Your task to perform on an android device: Go to Yahoo.com Image 0: 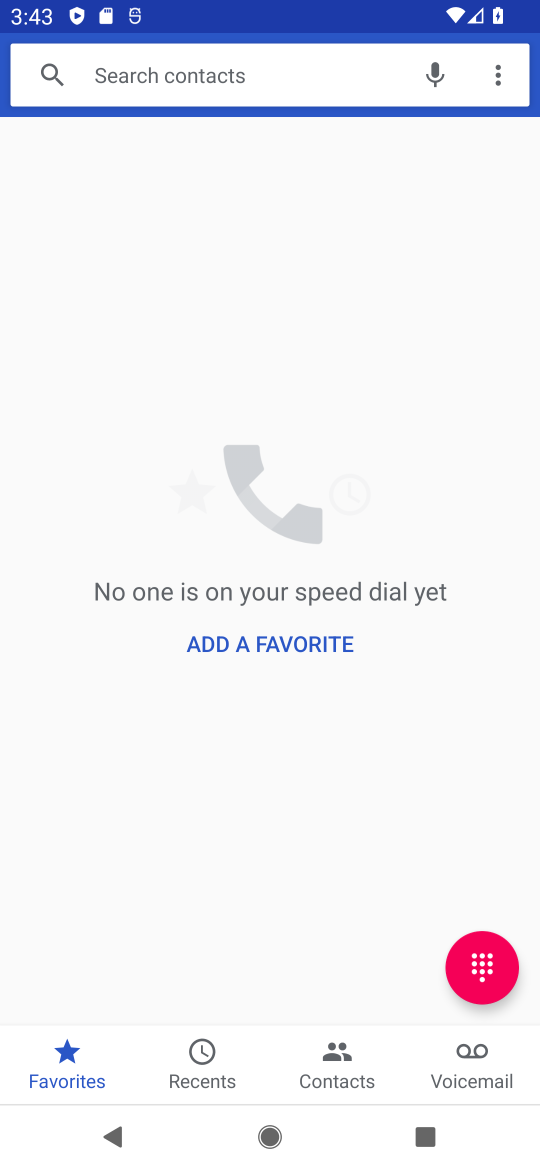
Step 0: press home button
Your task to perform on an android device: Go to Yahoo.com Image 1: 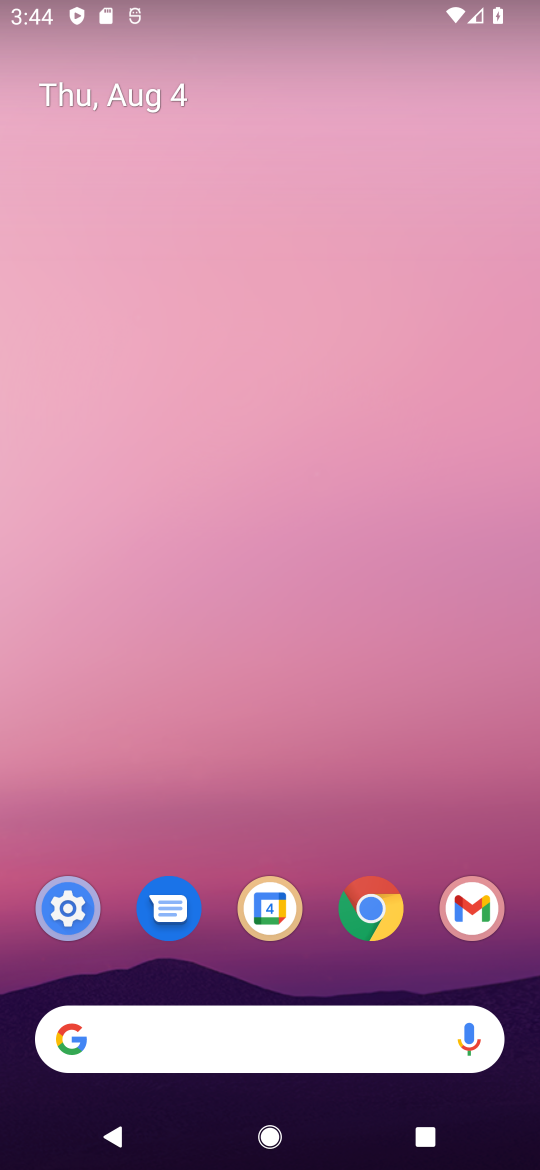
Step 1: click (371, 906)
Your task to perform on an android device: Go to Yahoo.com Image 2: 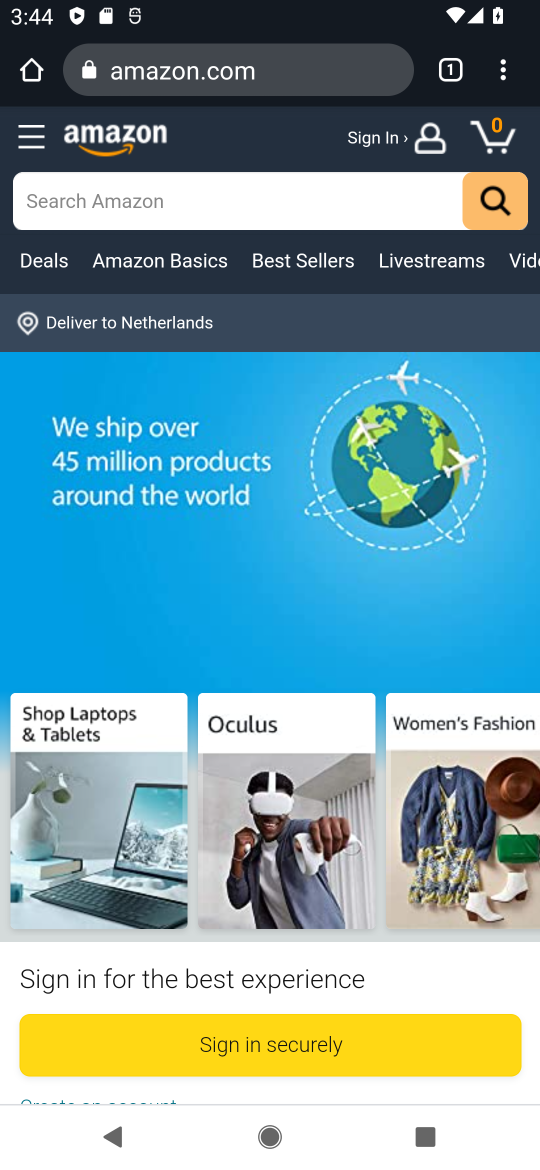
Step 2: click (296, 64)
Your task to perform on an android device: Go to Yahoo.com Image 3: 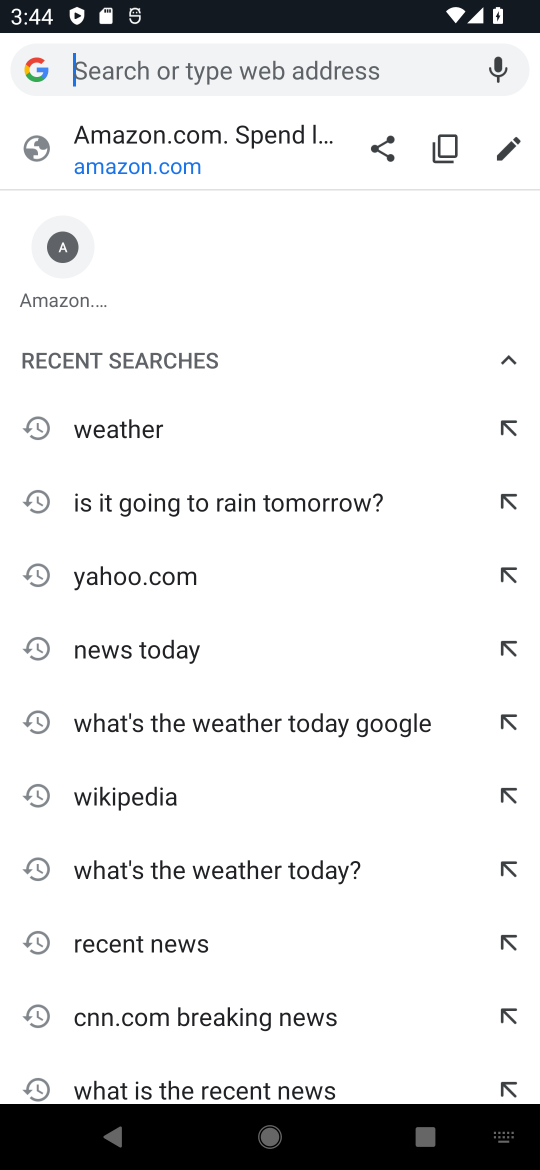
Step 3: type "yahoo.com"
Your task to perform on an android device: Go to Yahoo.com Image 4: 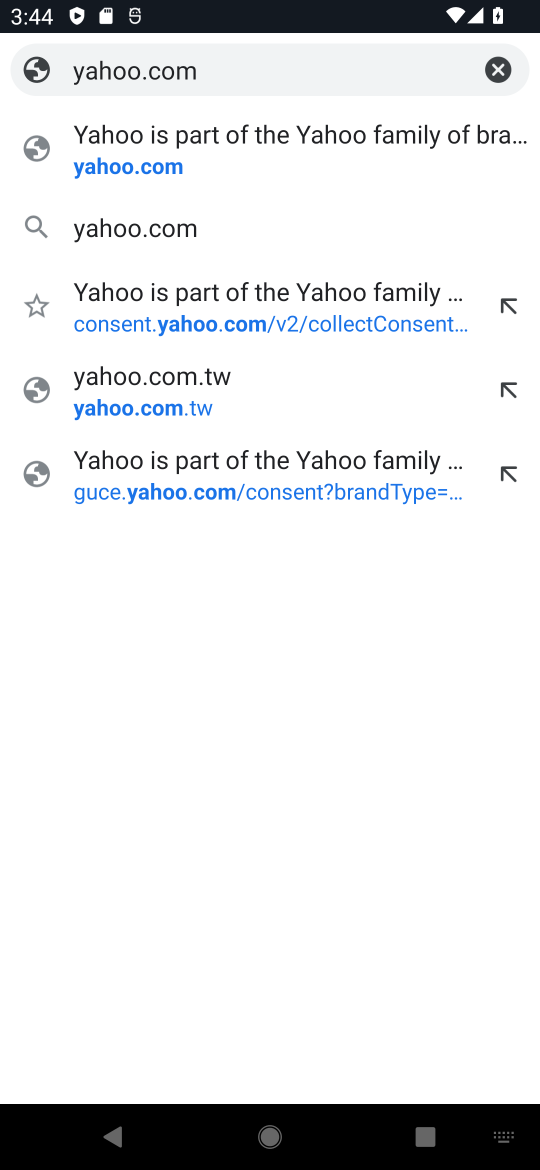
Step 4: click (315, 148)
Your task to perform on an android device: Go to Yahoo.com Image 5: 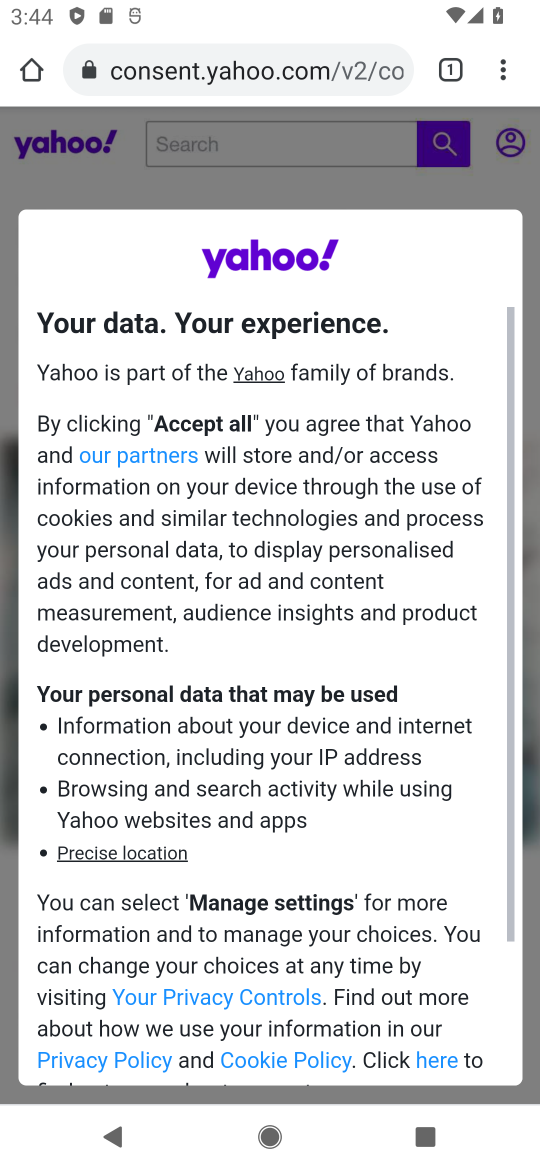
Step 5: task complete